Your task to perform on an android device: What's on my calendar tomorrow? Image 0: 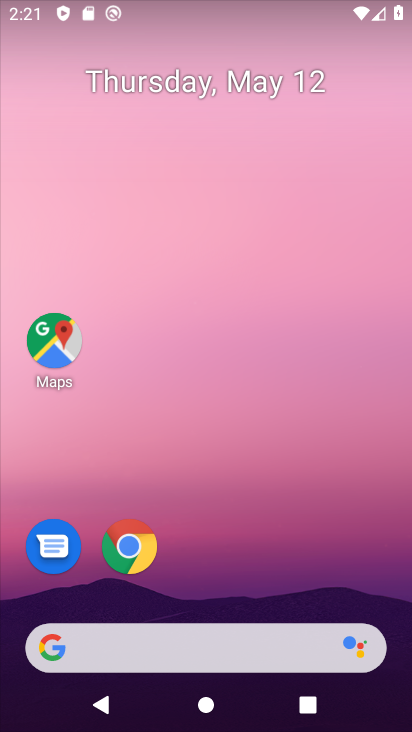
Step 0: drag from (275, 613) to (375, 243)
Your task to perform on an android device: What's on my calendar tomorrow? Image 1: 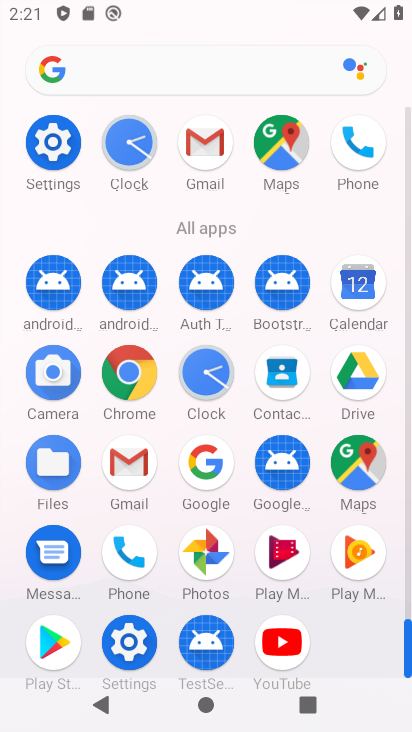
Step 1: click (356, 291)
Your task to perform on an android device: What's on my calendar tomorrow? Image 2: 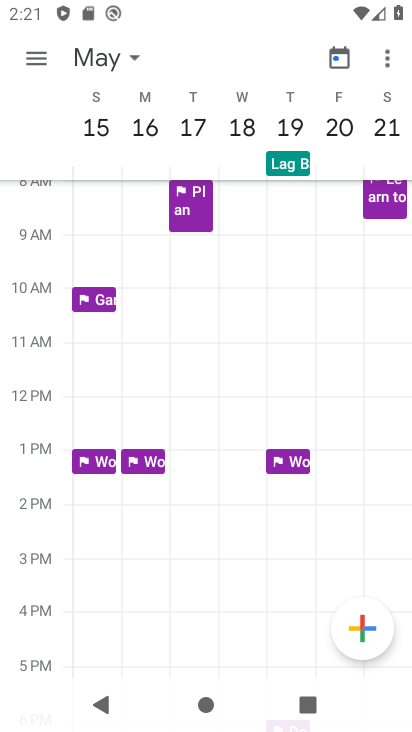
Step 2: drag from (71, 155) to (401, 152)
Your task to perform on an android device: What's on my calendar tomorrow? Image 3: 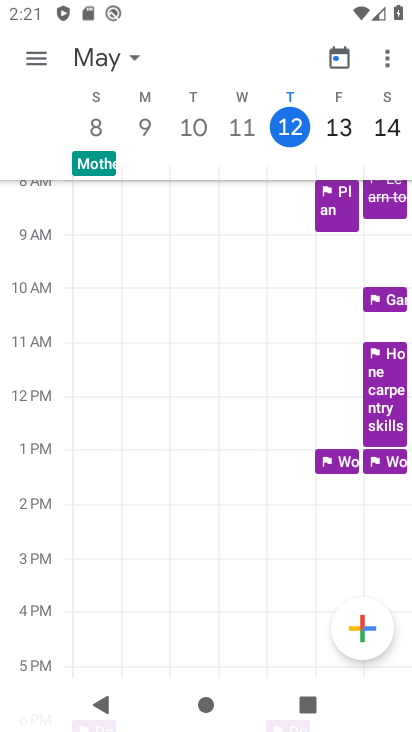
Step 3: click (345, 128)
Your task to perform on an android device: What's on my calendar tomorrow? Image 4: 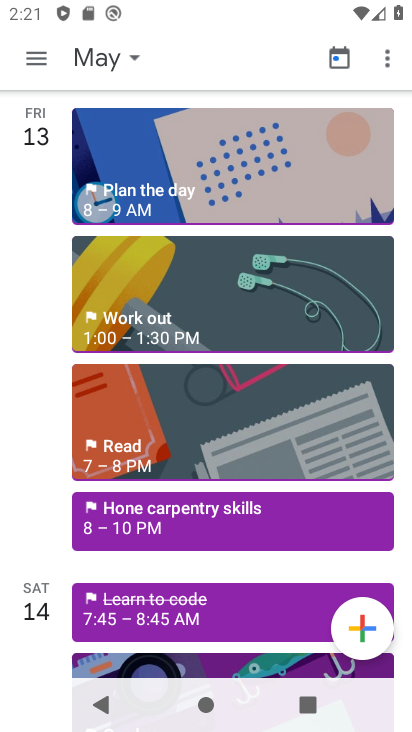
Step 4: task complete